Your task to perform on an android device: What's the weather going to be this weekend? Image 0: 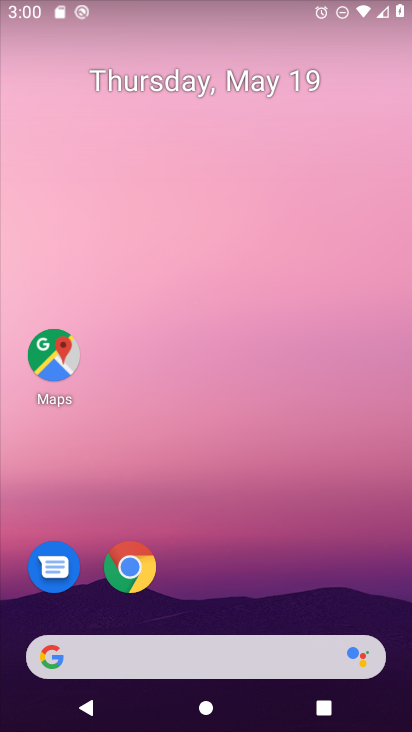
Step 0: drag from (257, 541) to (275, 312)
Your task to perform on an android device: What's the weather going to be this weekend? Image 1: 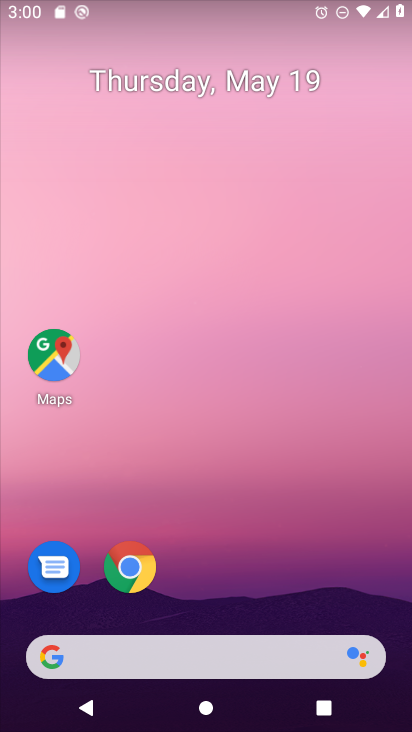
Step 1: click (248, 661)
Your task to perform on an android device: What's the weather going to be this weekend? Image 2: 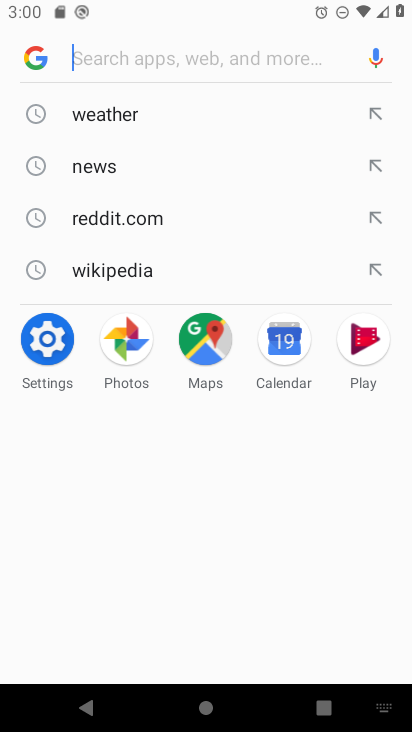
Step 2: click (87, 112)
Your task to perform on an android device: What's the weather going to be this weekend? Image 3: 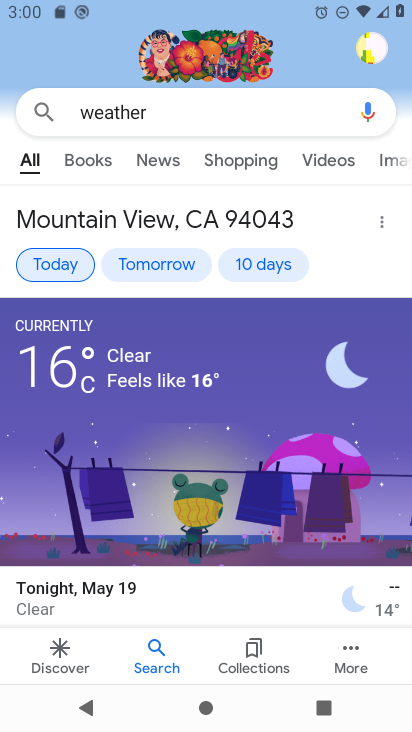
Step 3: click (69, 249)
Your task to perform on an android device: What's the weather going to be this weekend? Image 4: 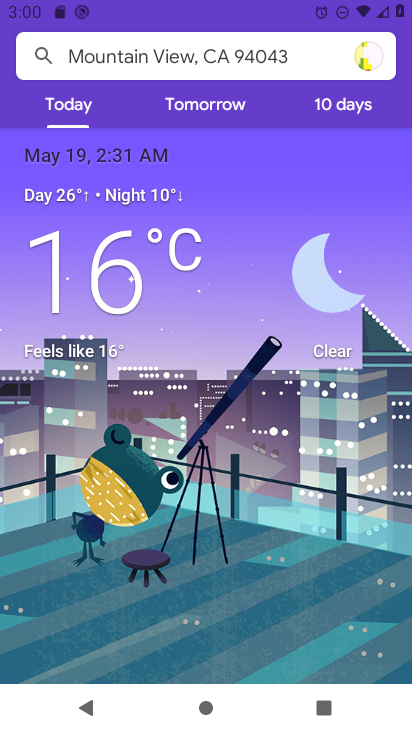
Step 4: click (345, 101)
Your task to perform on an android device: What's the weather going to be this weekend? Image 5: 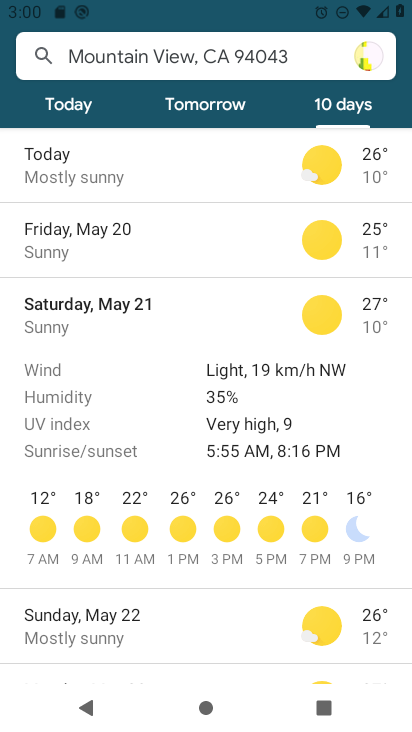
Step 5: task complete